Your task to perform on an android device: Open calendar and show me the first week of next month Image 0: 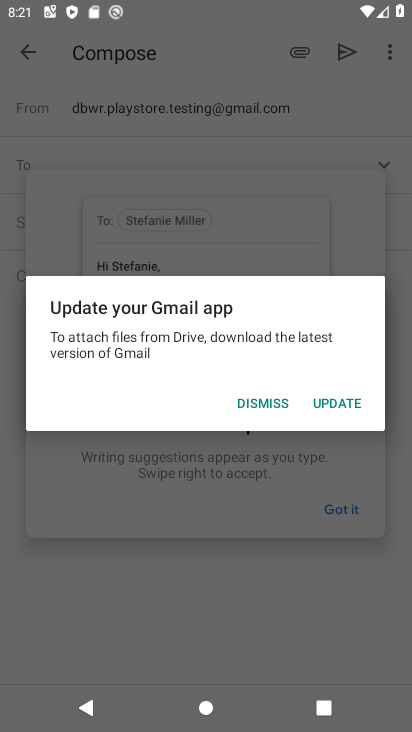
Step 0: press home button
Your task to perform on an android device: Open calendar and show me the first week of next month Image 1: 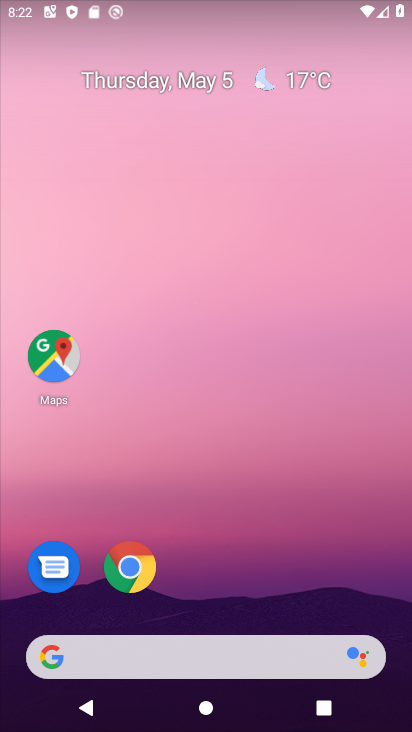
Step 1: drag from (271, 562) to (298, 21)
Your task to perform on an android device: Open calendar and show me the first week of next month Image 2: 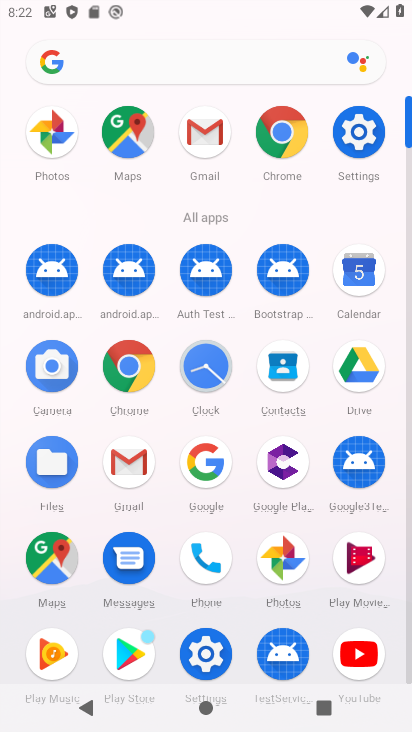
Step 2: click (357, 276)
Your task to perform on an android device: Open calendar and show me the first week of next month Image 3: 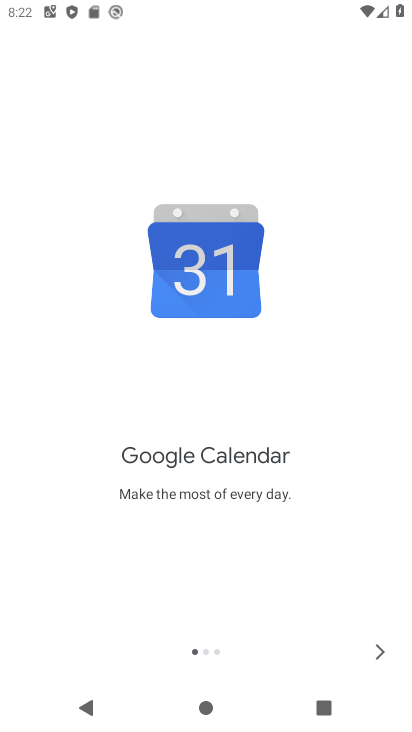
Step 3: click (379, 644)
Your task to perform on an android device: Open calendar and show me the first week of next month Image 4: 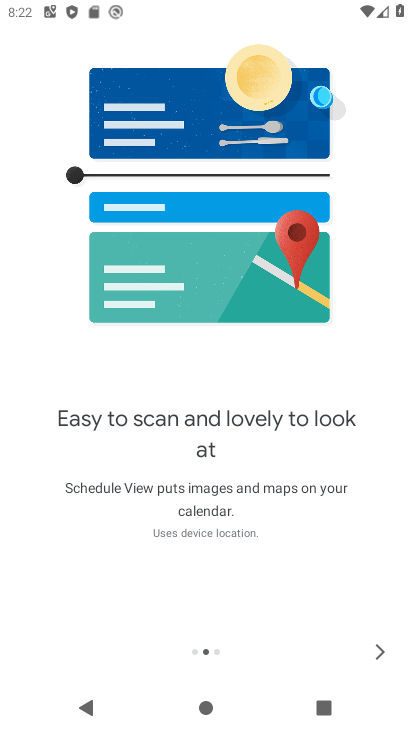
Step 4: click (377, 653)
Your task to perform on an android device: Open calendar and show me the first week of next month Image 5: 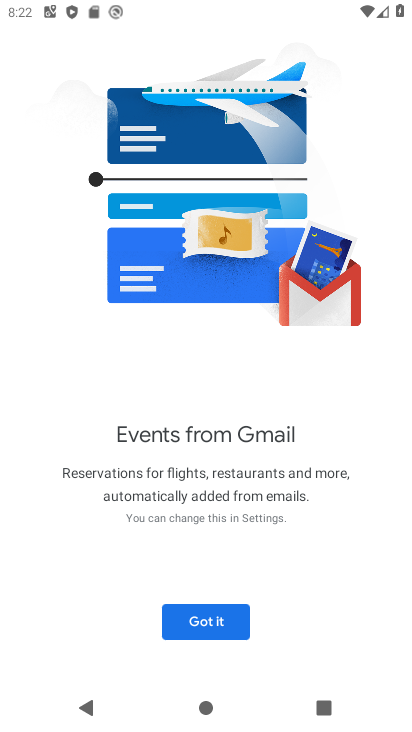
Step 5: click (238, 621)
Your task to perform on an android device: Open calendar and show me the first week of next month Image 6: 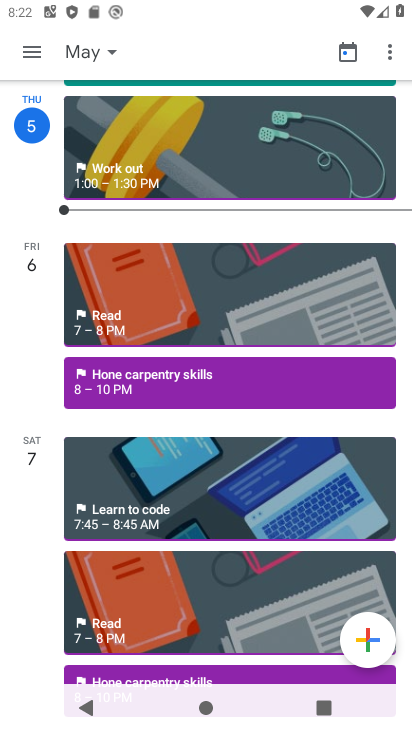
Step 6: click (29, 52)
Your task to perform on an android device: Open calendar and show me the first week of next month Image 7: 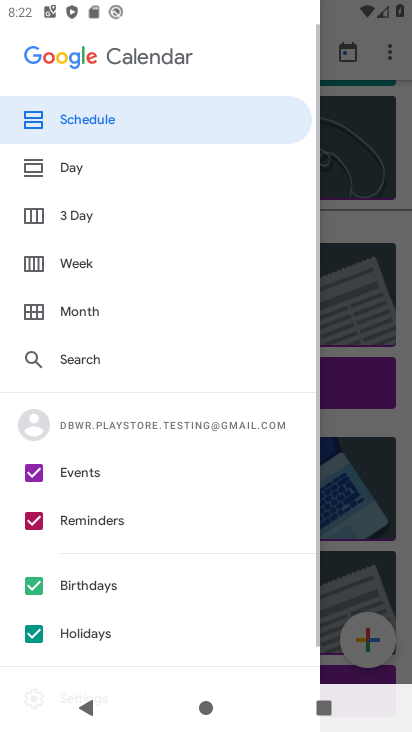
Step 7: click (61, 256)
Your task to perform on an android device: Open calendar and show me the first week of next month Image 8: 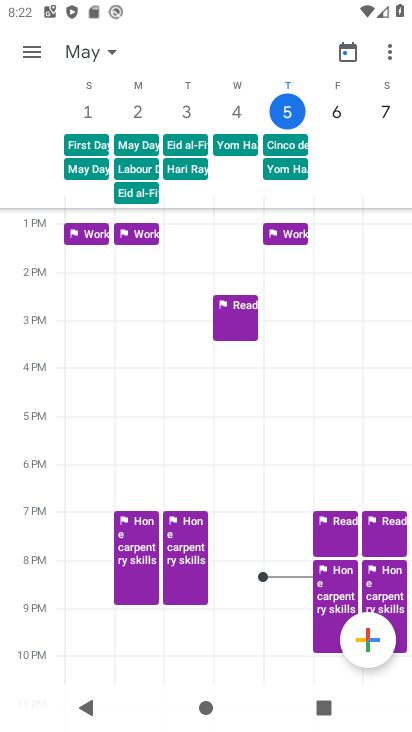
Step 8: task complete